Your task to perform on an android device: Open location settings Image 0: 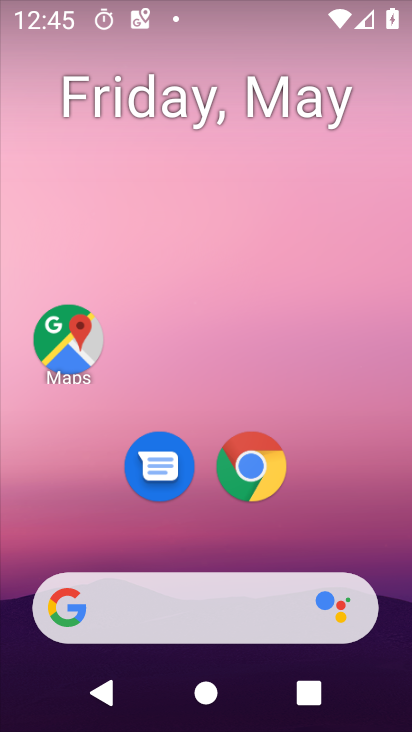
Step 0: drag from (391, 610) to (255, 139)
Your task to perform on an android device: Open location settings Image 1: 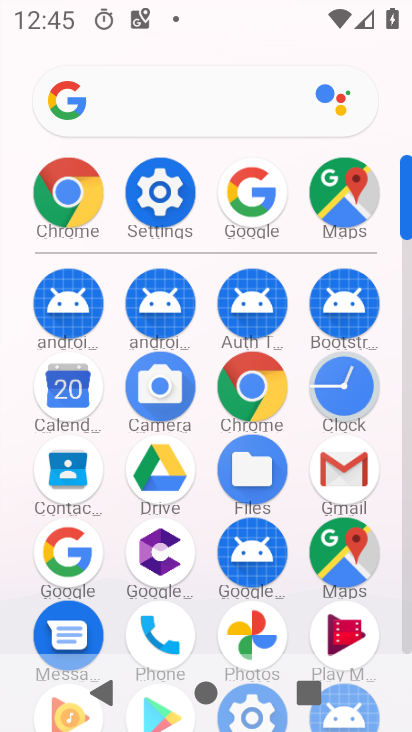
Step 1: click (161, 207)
Your task to perform on an android device: Open location settings Image 2: 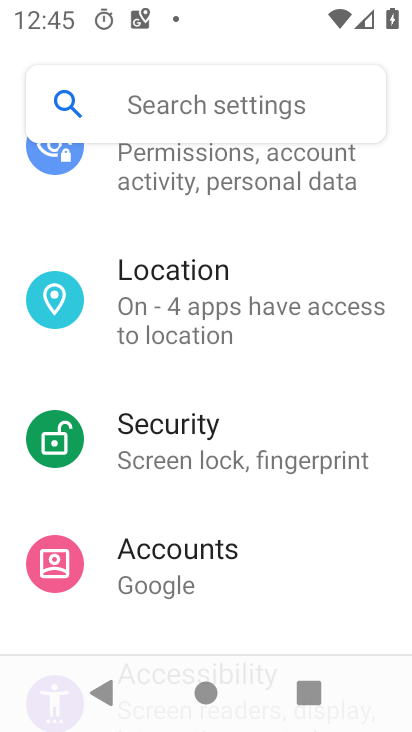
Step 2: click (222, 303)
Your task to perform on an android device: Open location settings Image 3: 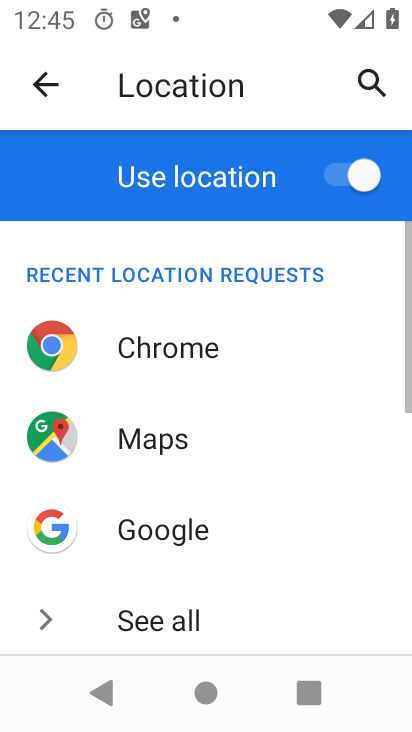
Step 3: task complete